Your task to perform on an android device: Open location settings Image 0: 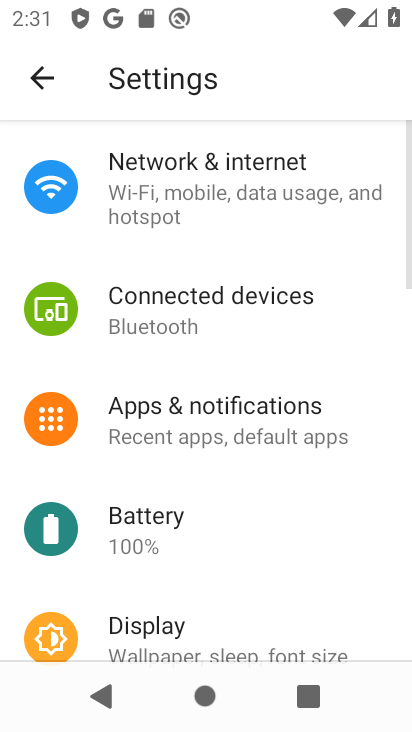
Step 0: drag from (174, 632) to (258, 327)
Your task to perform on an android device: Open location settings Image 1: 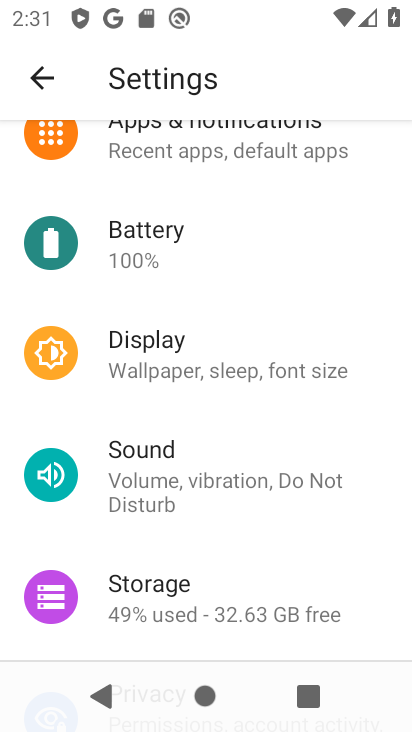
Step 1: drag from (151, 569) to (294, 52)
Your task to perform on an android device: Open location settings Image 2: 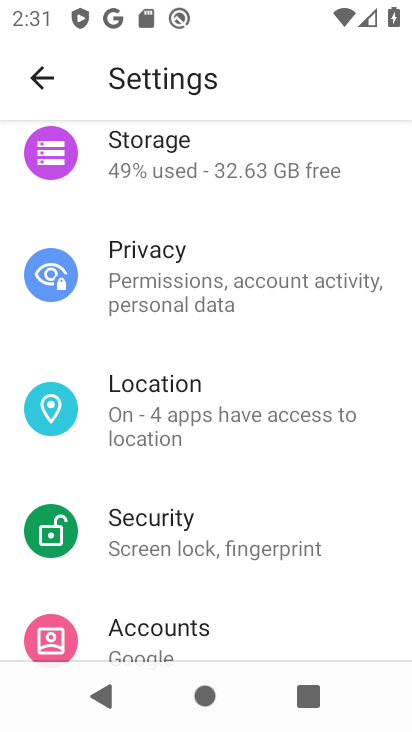
Step 2: click (169, 404)
Your task to perform on an android device: Open location settings Image 3: 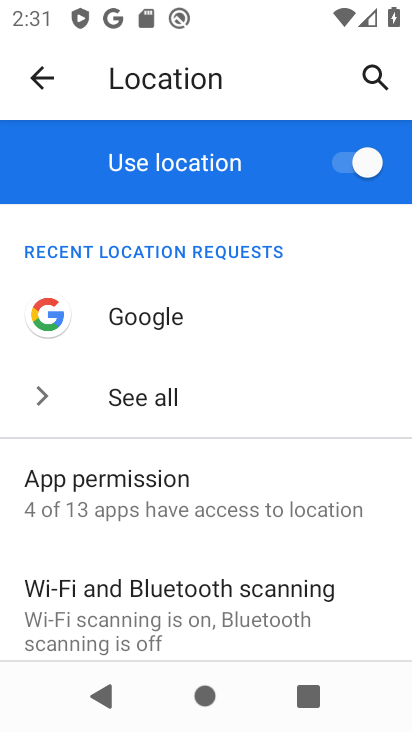
Step 3: task complete